Your task to perform on an android device: open app "Etsy: Buy & Sell Unique Items" Image 0: 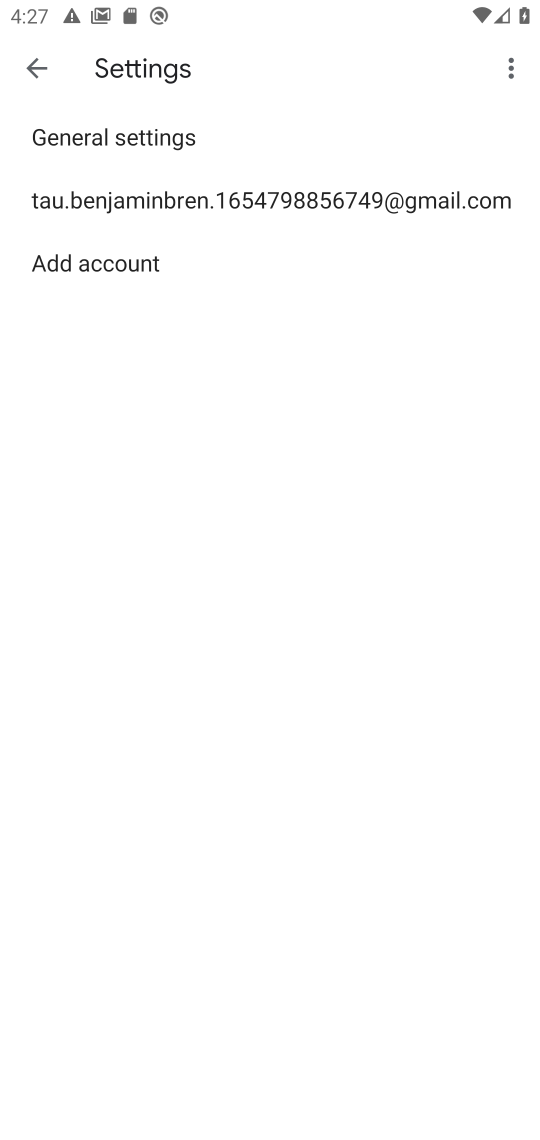
Step 0: press home button
Your task to perform on an android device: open app "Etsy: Buy & Sell Unique Items" Image 1: 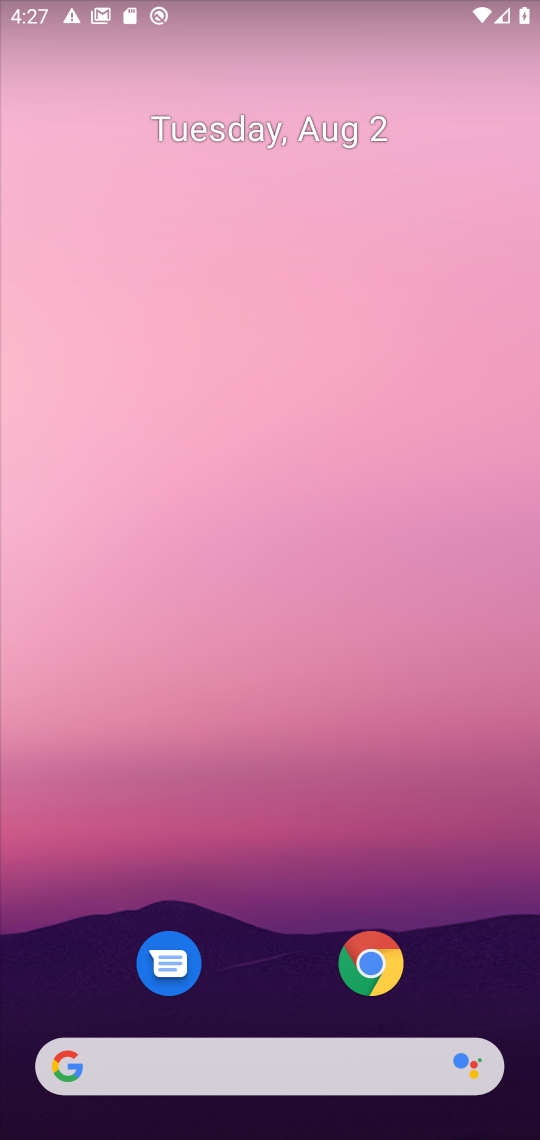
Step 1: drag from (261, 1036) to (184, 123)
Your task to perform on an android device: open app "Etsy: Buy & Sell Unique Items" Image 2: 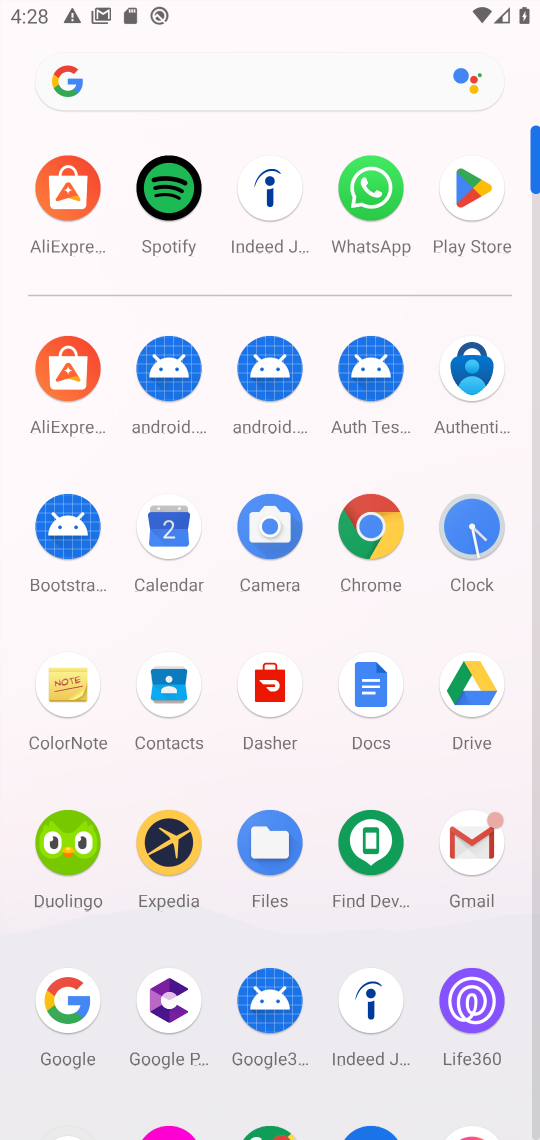
Step 2: click (478, 192)
Your task to perform on an android device: open app "Etsy: Buy & Sell Unique Items" Image 3: 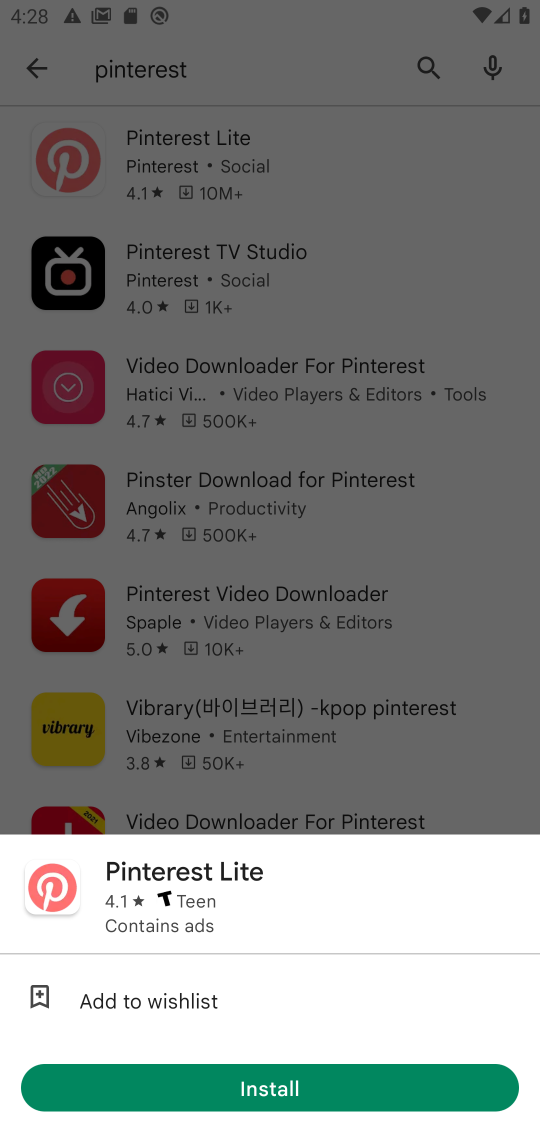
Step 3: click (410, 79)
Your task to perform on an android device: open app "Etsy: Buy & Sell Unique Items" Image 4: 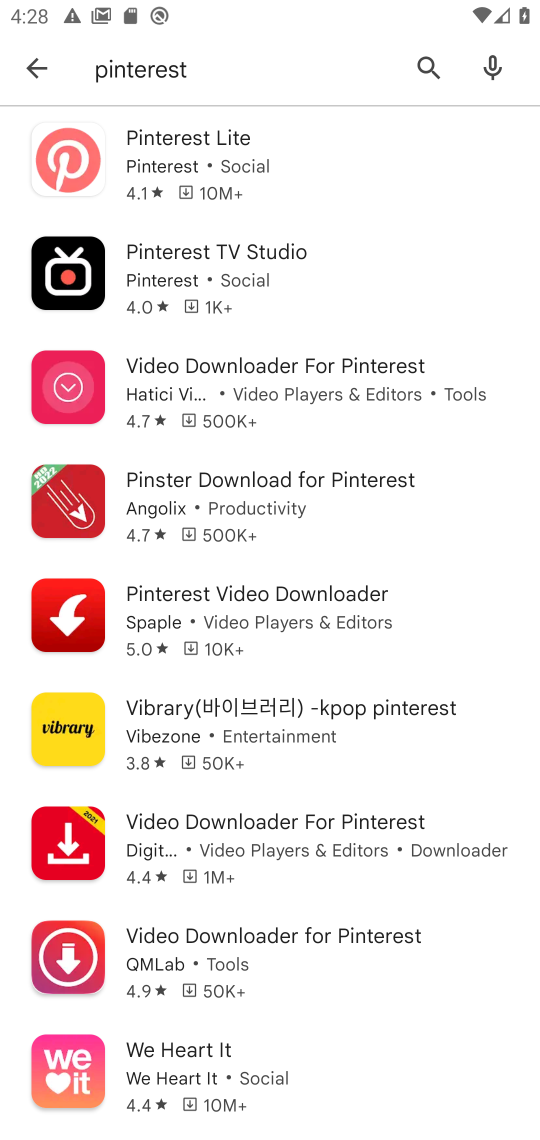
Step 4: click (418, 63)
Your task to perform on an android device: open app "Etsy: Buy & Sell Unique Items" Image 5: 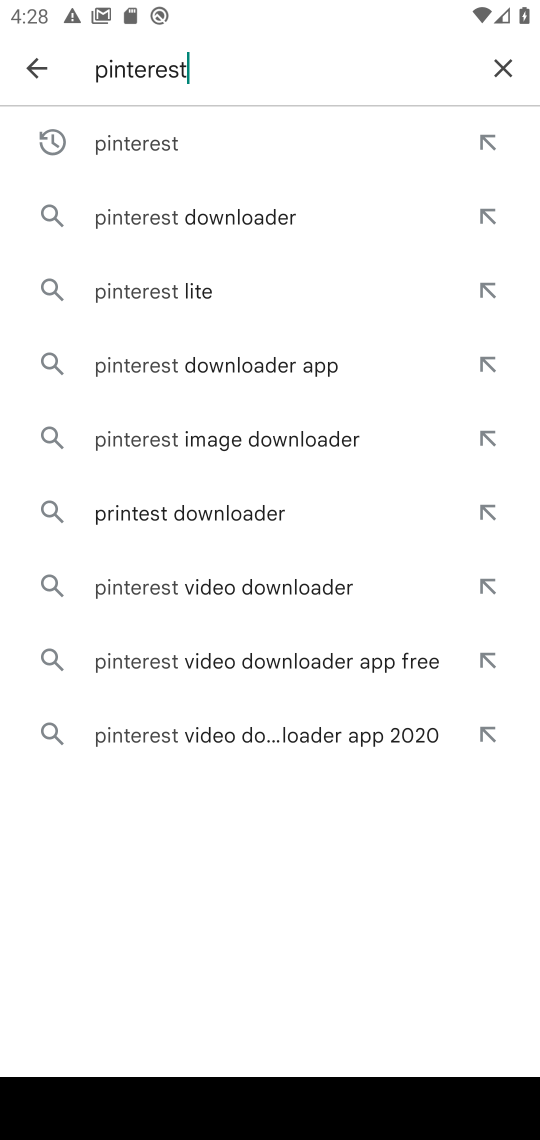
Step 5: click (513, 68)
Your task to perform on an android device: open app "Etsy: Buy & Sell Unique Items" Image 6: 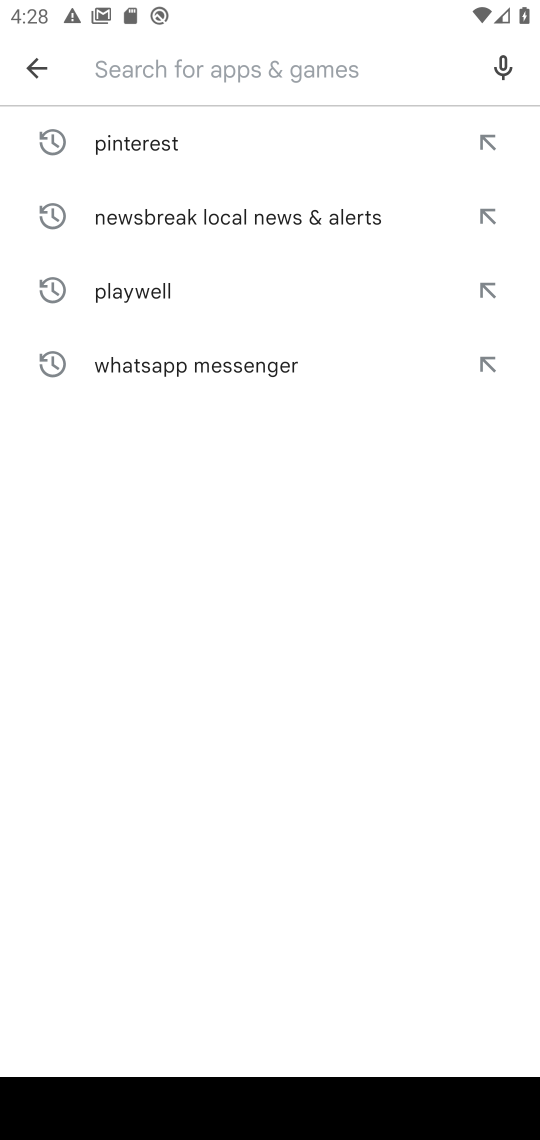
Step 6: type "Etsy: Buy & Sell Unique Item"
Your task to perform on an android device: open app "Etsy: Buy & Sell Unique Items" Image 7: 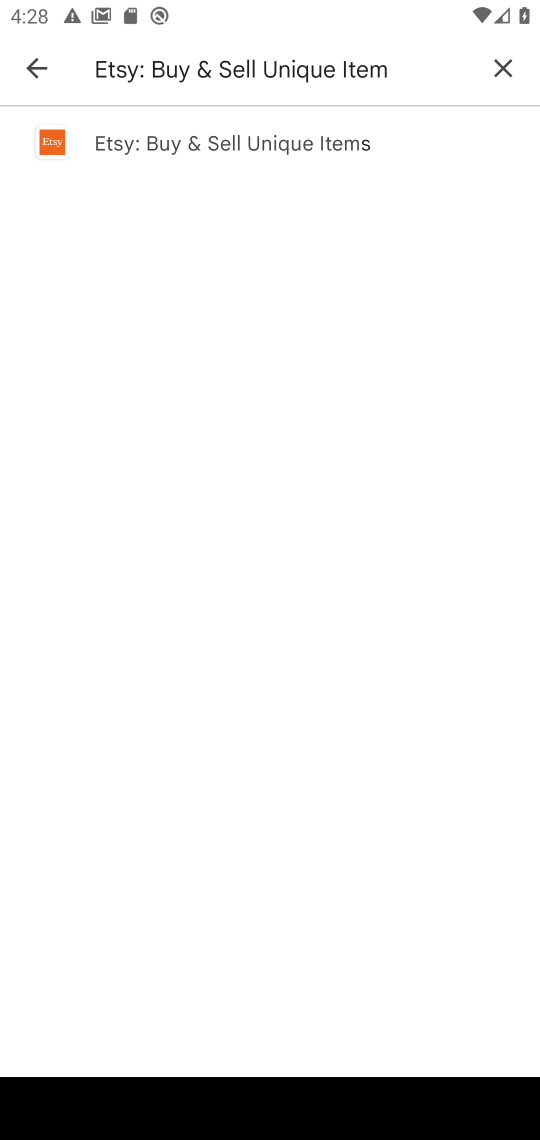
Step 7: click (171, 143)
Your task to perform on an android device: open app "Etsy: Buy & Sell Unique Items" Image 8: 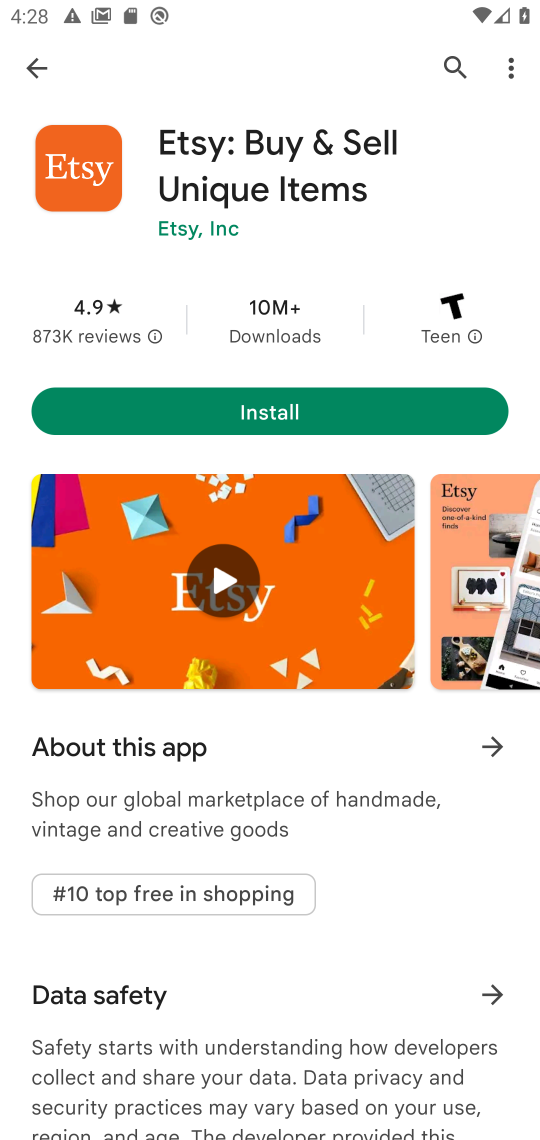
Step 8: click (278, 407)
Your task to perform on an android device: open app "Etsy: Buy & Sell Unique Items" Image 9: 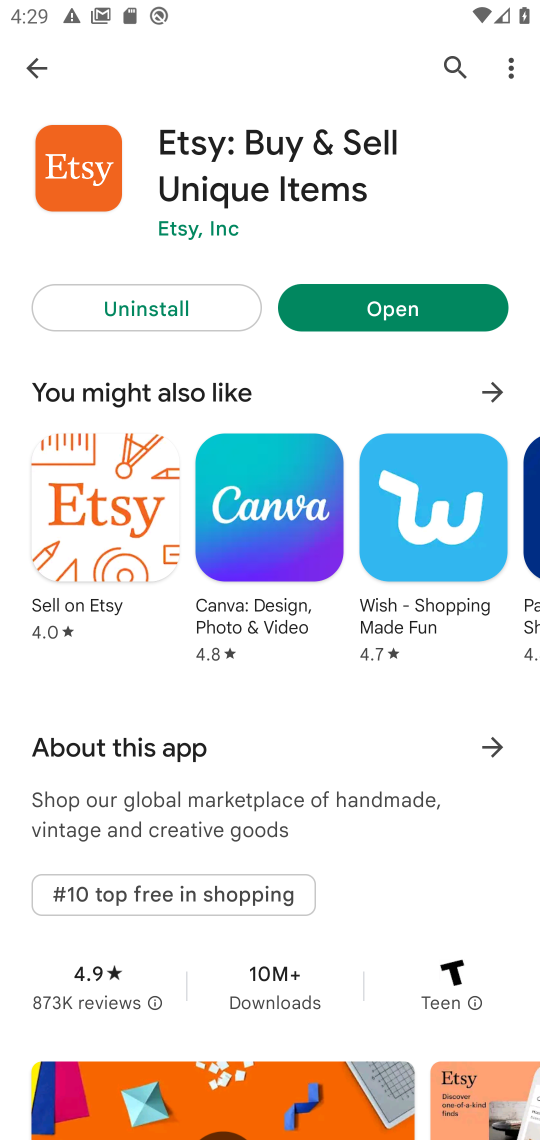
Step 9: click (380, 313)
Your task to perform on an android device: open app "Etsy: Buy & Sell Unique Items" Image 10: 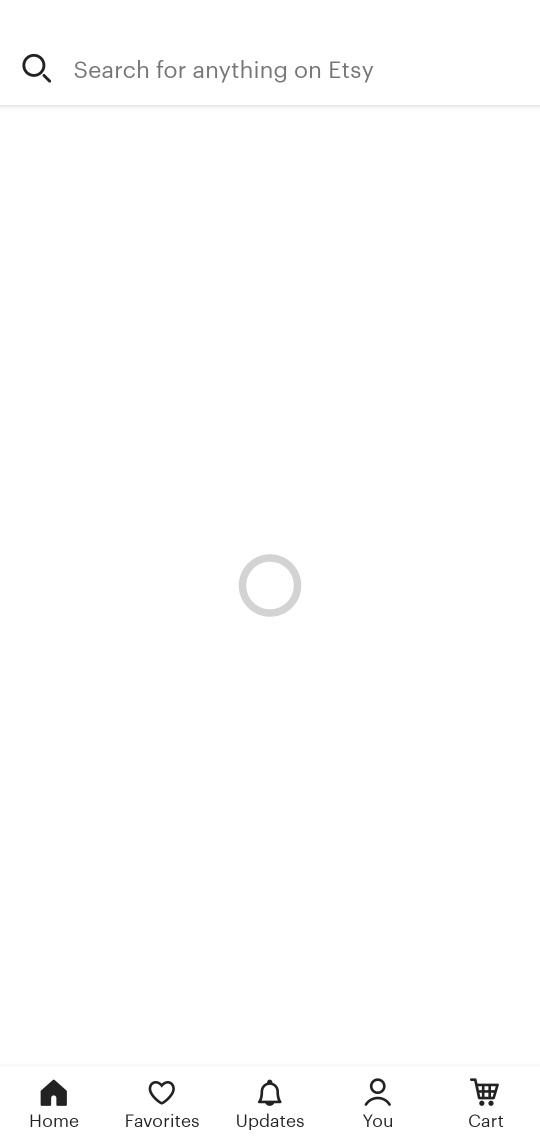
Step 10: task complete